Your task to perform on an android device: see creations saved in the google photos Image 0: 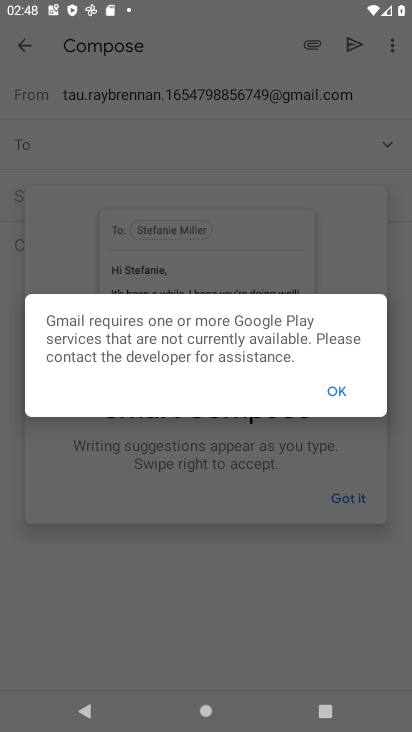
Step 0: press home button
Your task to perform on an android device: see creations saved in the google photos Image 1: 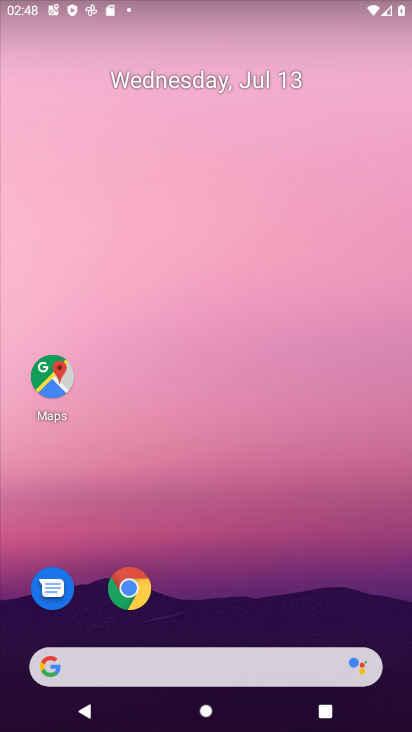
Step 1: drag from (387, 675) to (309, 11)
Your task to perform on an android device: see creations saved in the google photos Image 2: 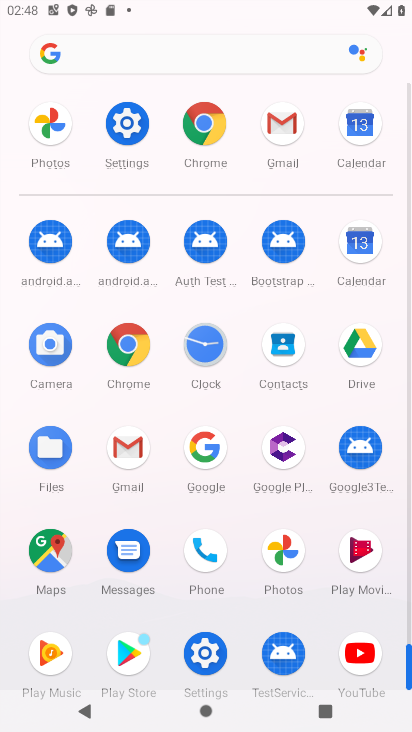
Step 2: click (280, 538)
Your task to perform on an android device: see creations saved in the google photos Image 3: 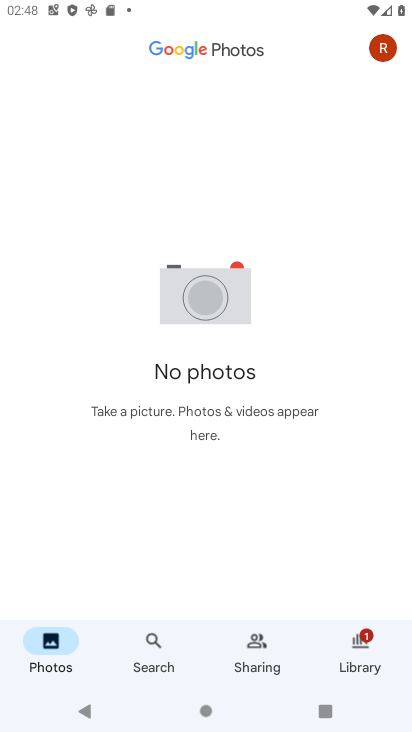
Step 3: task complete